Your task to perform on an android device: Open notification settings Image 0: 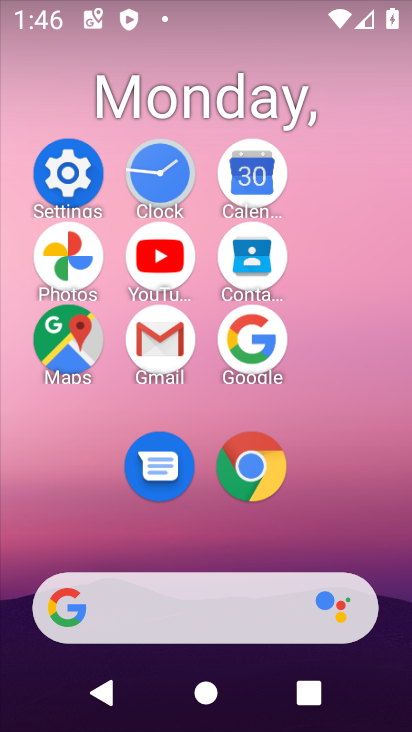
Step 0: click (74, 176)
Your task to perform on an android device: Open notification settings Image 1: 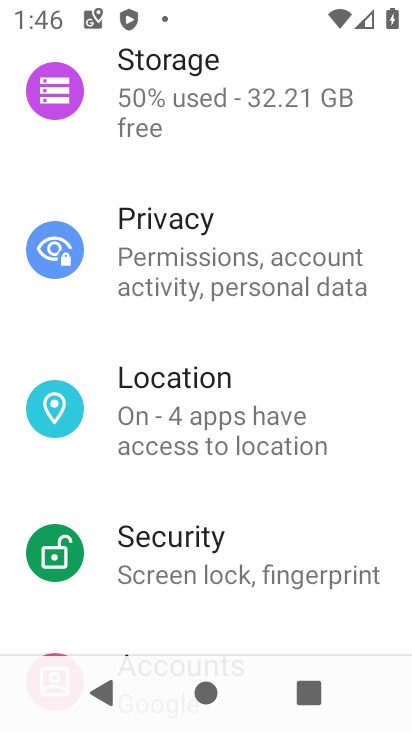
Step 1: drag from (235, 145) to (203, 553)
Your task to perform on an android device: Open notification settings Image 2: 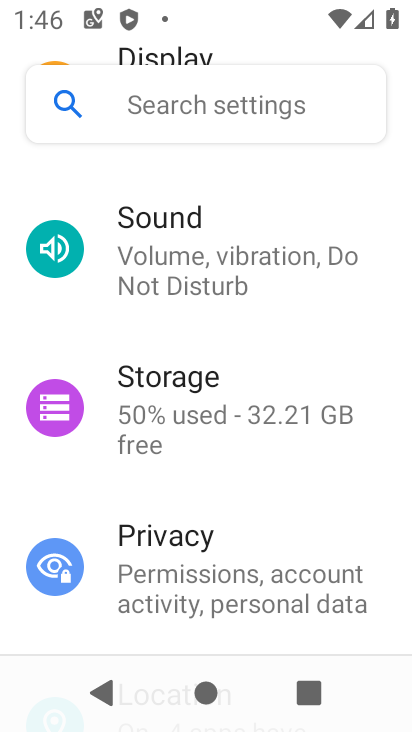
Step 2: drag from (302, 170) to (299, 620)
Your task to perform on an android device: Open notification settings Image 3: 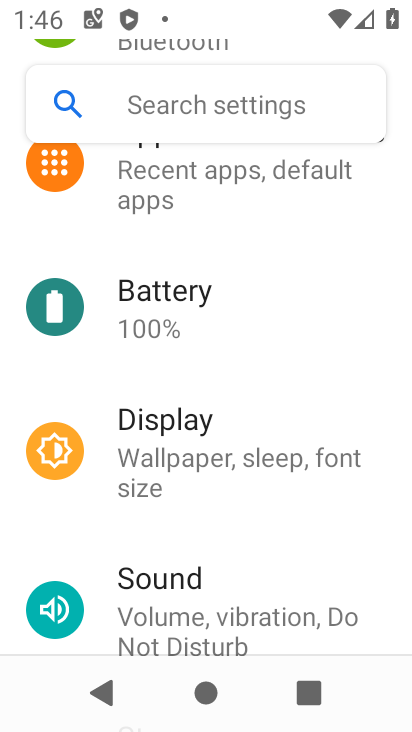
Step 3: drag from (249, 214) to (281, 622)
Your task to perform on an android device: Open notification settings Image 4: 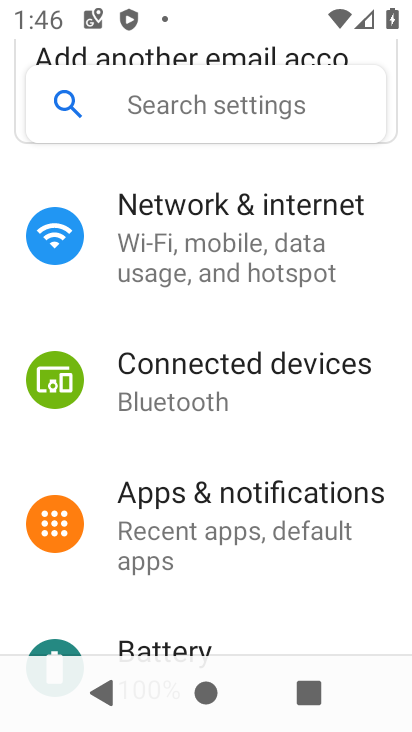
Step 4: click (298, 502)
Your task to perform on an android device: Open notification settings Image 5: 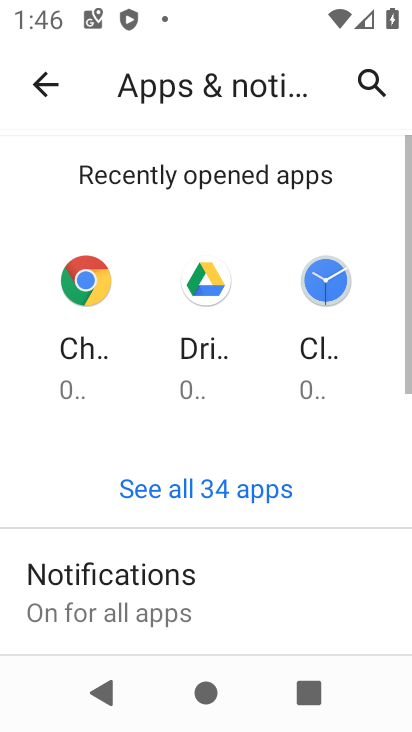
Step 5: task complete